Your task to perform on an android device: Go to display settings Image 0: 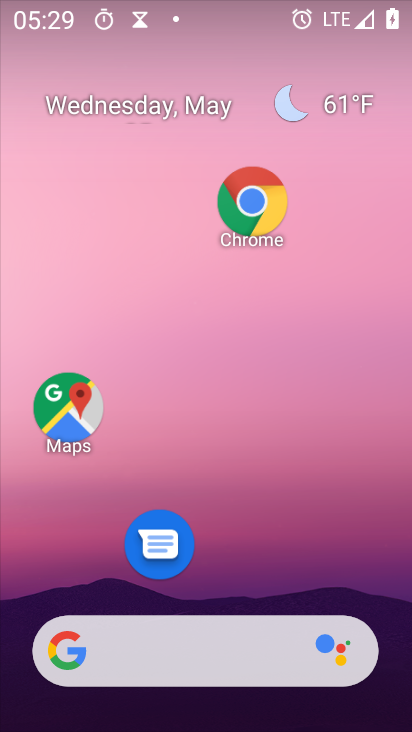
Step 0: drag from (230, 587) to (213, 77)
Your task to perform on an android device: Go to display settings Image 1: 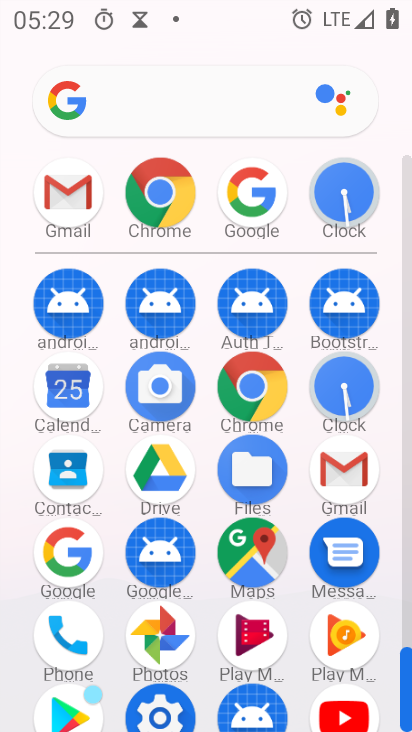
Step 1: drag from (197, 634) to (220, 266)
Your task to perform on an android device: Go to display settings Image 2: 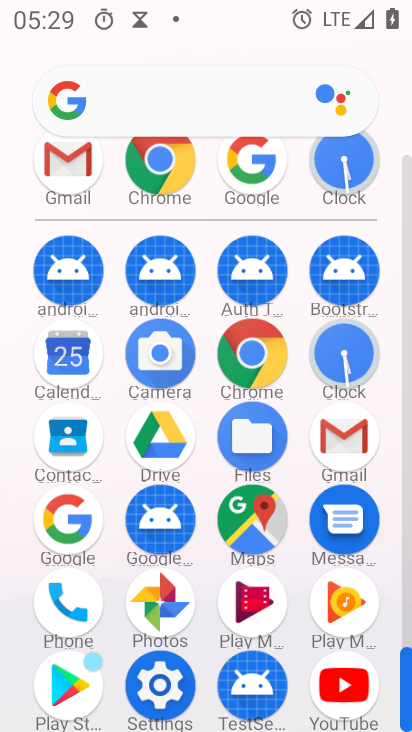
Step 2: click (164, 673)
Your task to perform on an android device: Go to display settings Image 3: 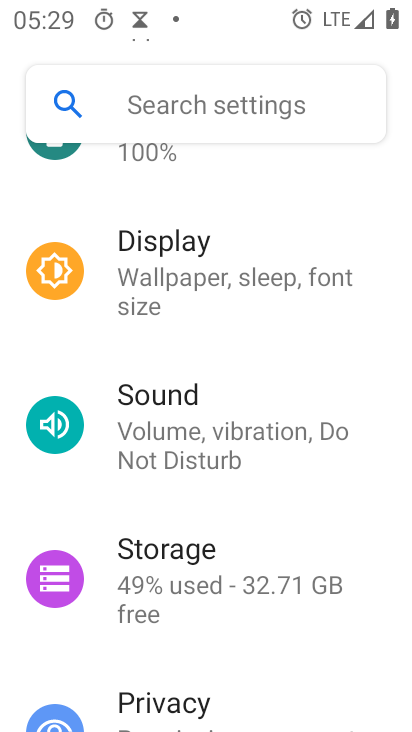
Step 3: drag from (241, 661) to (244, 148)
Your task to perform on an android device: Go to display settings Image 4: 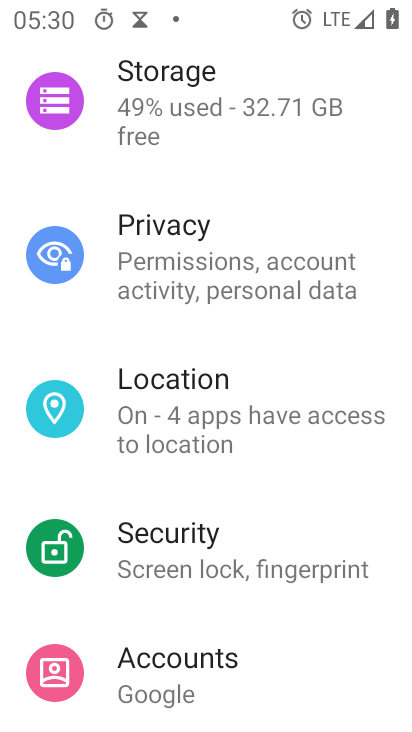
Step 4: drag from (250, 68) to (243, 541)
Your task to perform on an android device: Go to display settings Image 5: 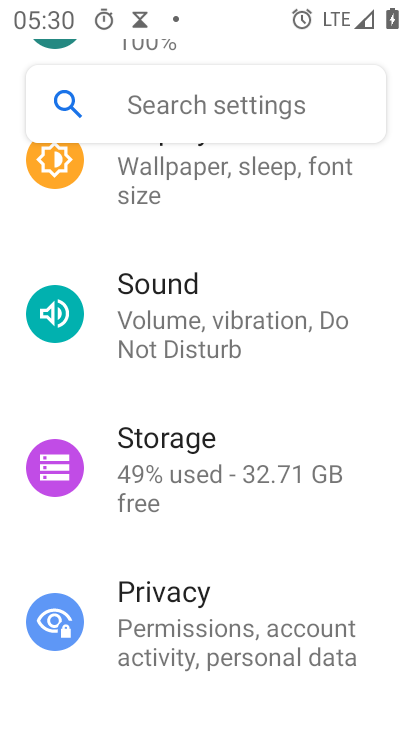
Step 5: drag from (225, 252) to (242, 603)
Your task to perform on an android device: Go to display settings Image 6: 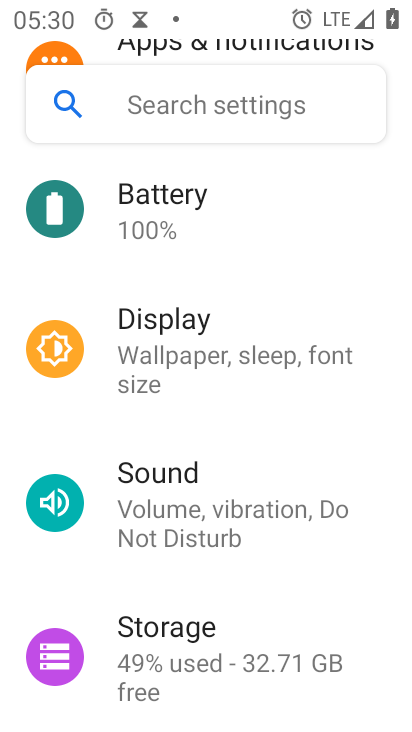
Step 6: click (205, 342)
Your task to perform on an android device: Go to display settings Image 7: 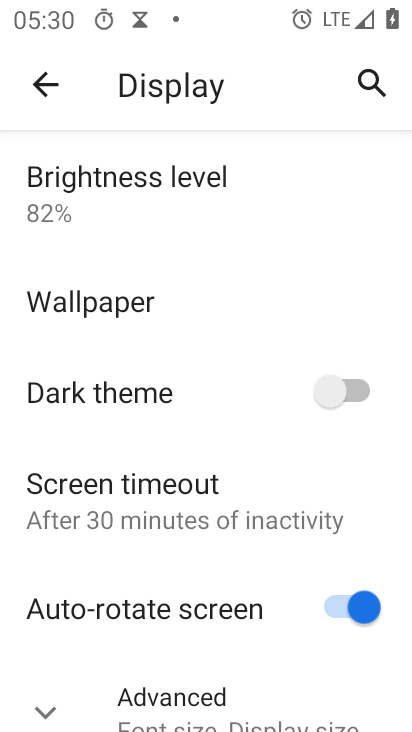
Step 7: drag from (264, 684) to (294, 224)
Your task to perform on an android device: Go to display settings Image 8: 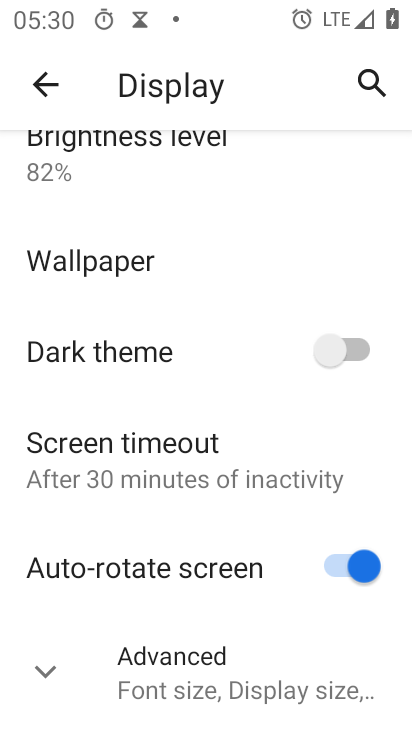
Step 8: click (210, 689)
Your task to perform on an android device: Go to display settings Image 9: 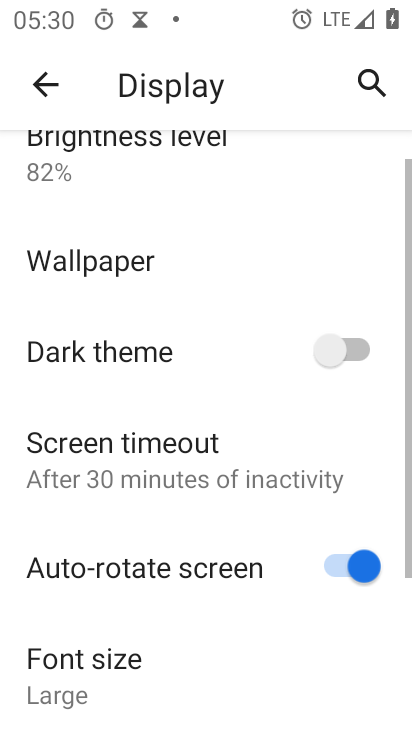
Step 9: task complete